Your task to perform on an android device: uninstall "Roku - Official Remote Control" Image 0: 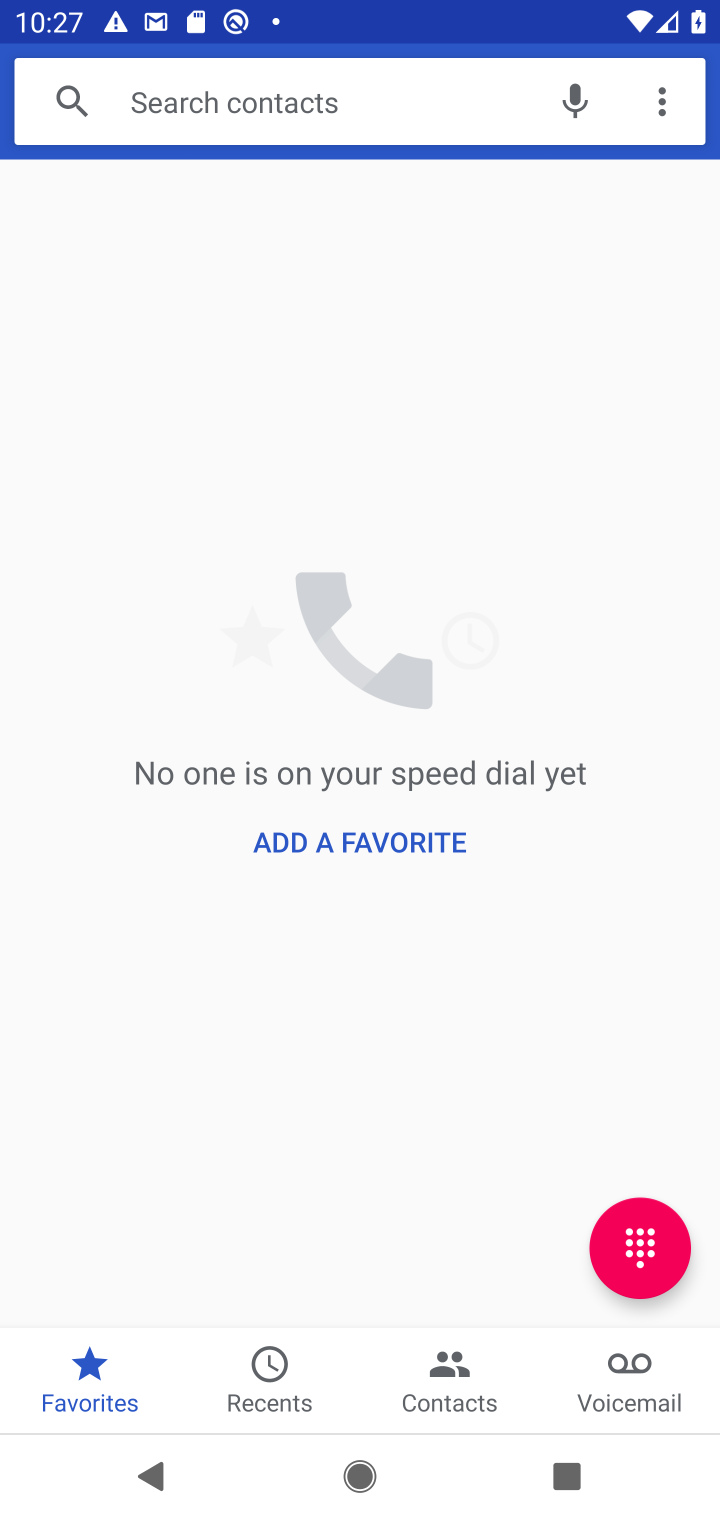
Step 0: press home button
Your task to perform on an android device: uninstall "Roku - Official Remote Control" Image 1: 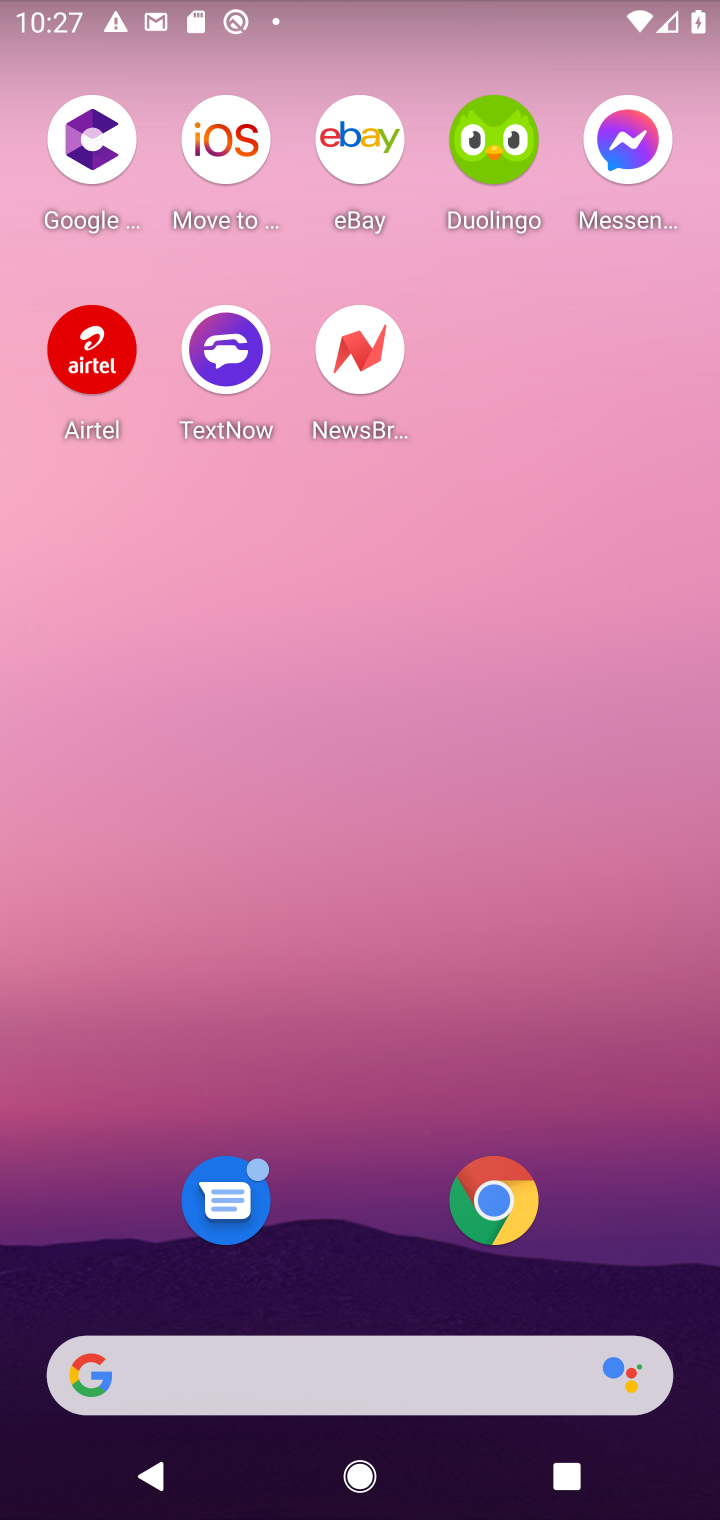
Step 1: press home button
Your task to perform on an android device: uninstall "Roku - Official Remote Control" Image 2: 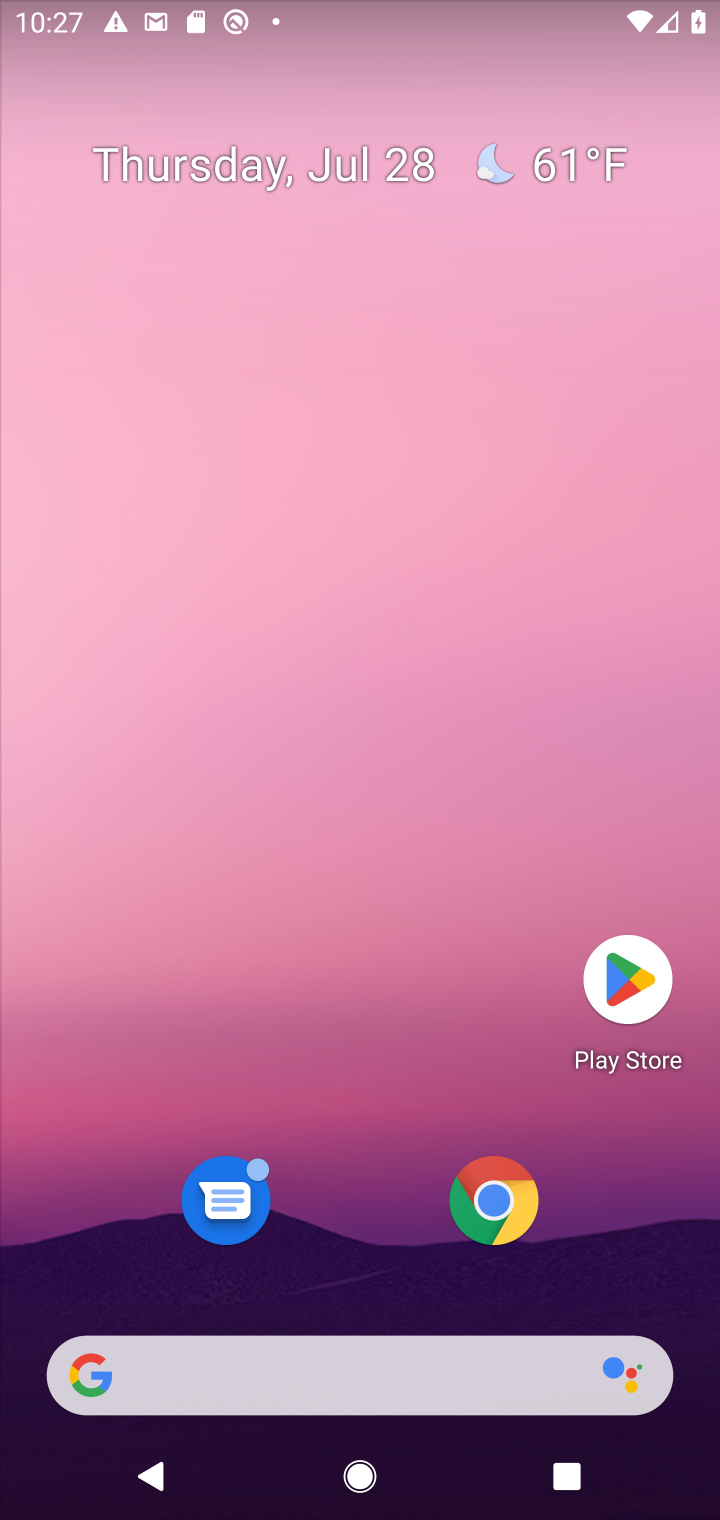
Step 2: click (643, 980)
Your task to perform on an android device: uninstall "Roku - Official Remote Control" Image 3: 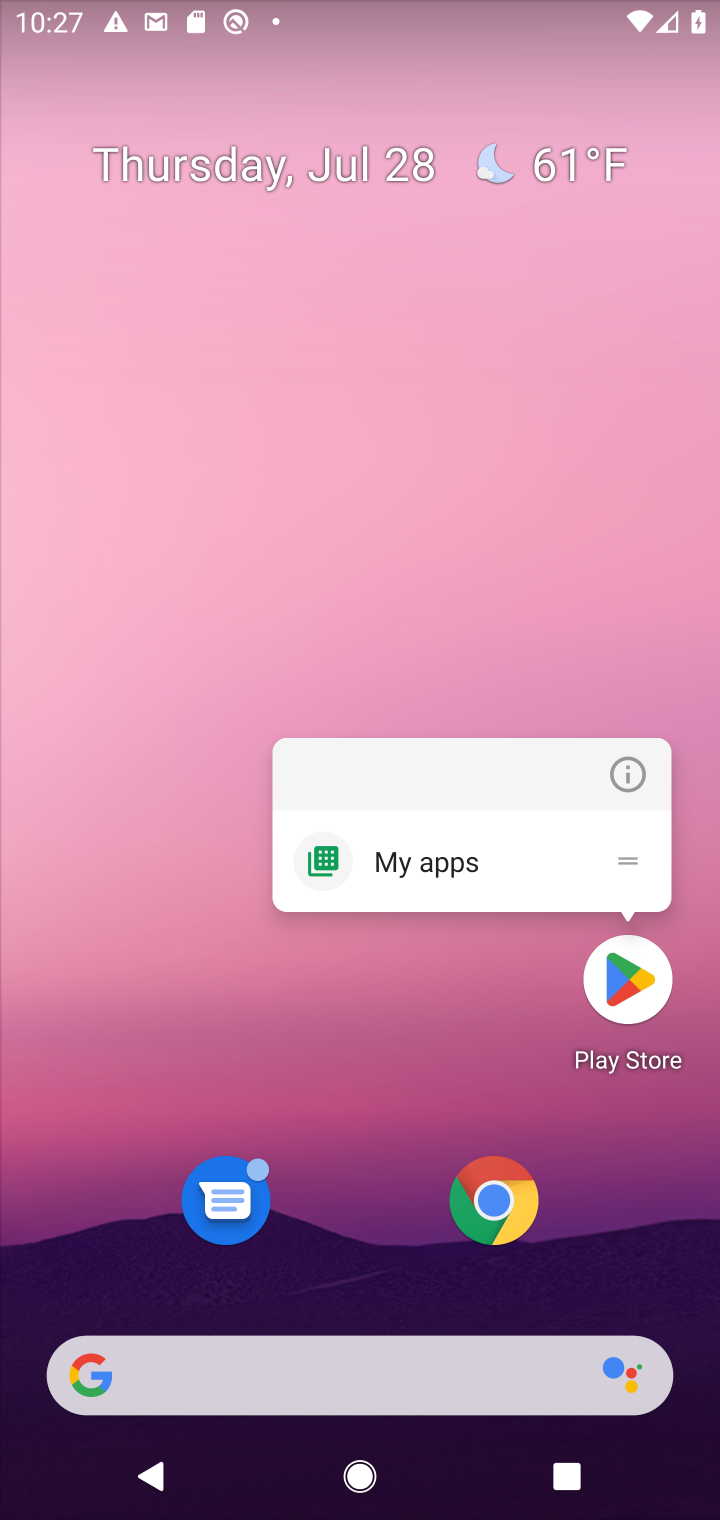
Step 3: click (636, 984)
Your task to perform on an android device: uninstall "Roku - Official Remote Control" Image 4: 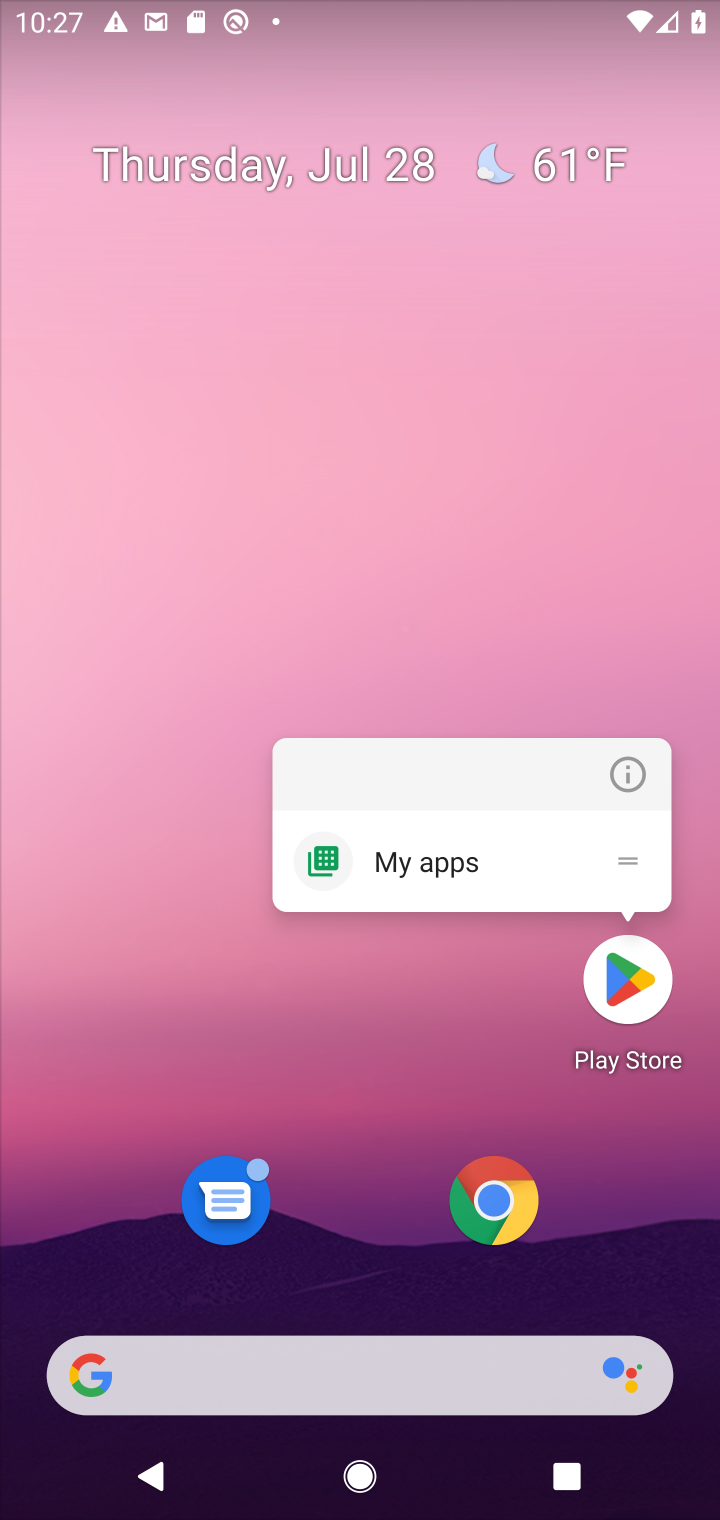
Step 4: click (636, 993)
Your task to perform on an android device: uninstall "Roku - Official Remote Control" Image 5: 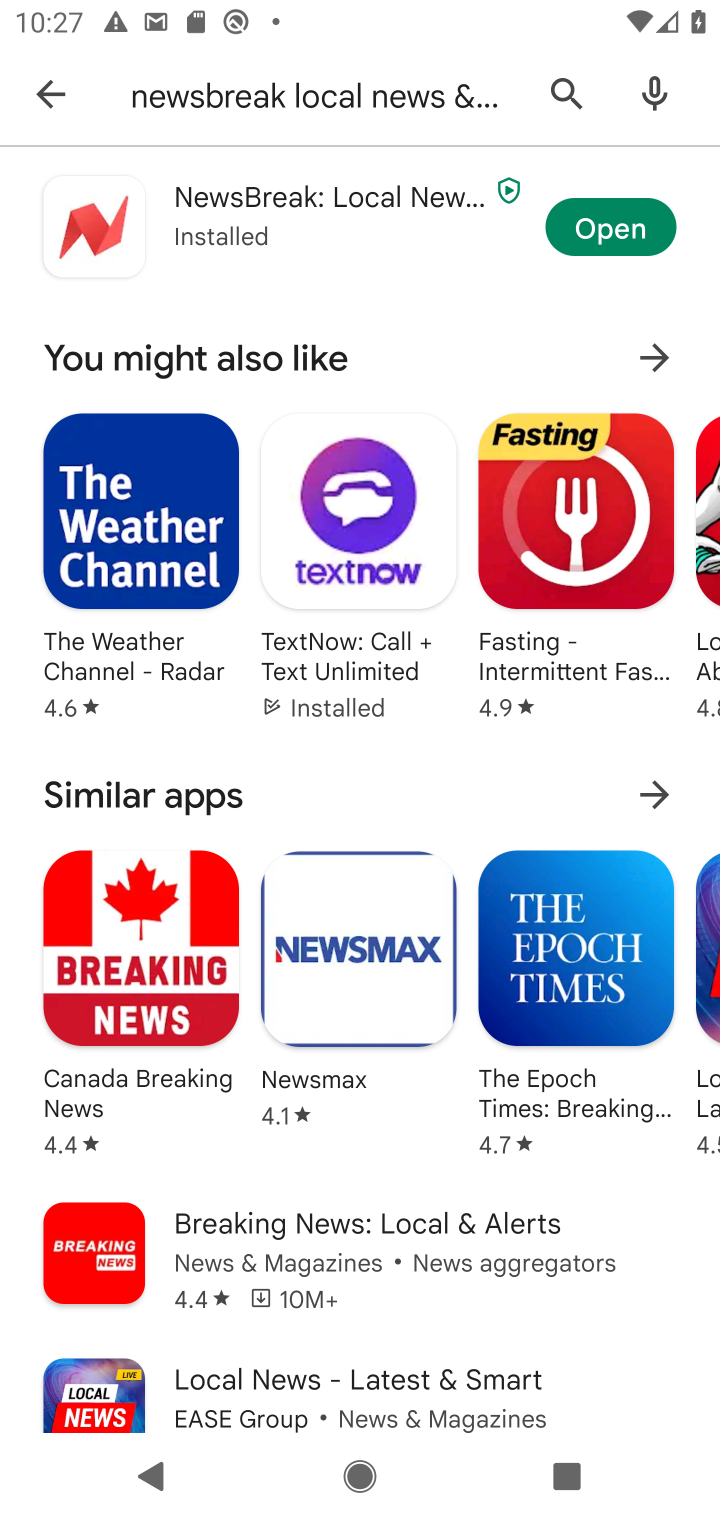
Step 5: click (560, 87)
Your task to perform on an android device: uninstall "Roku - Official Remote Control" Image 6: 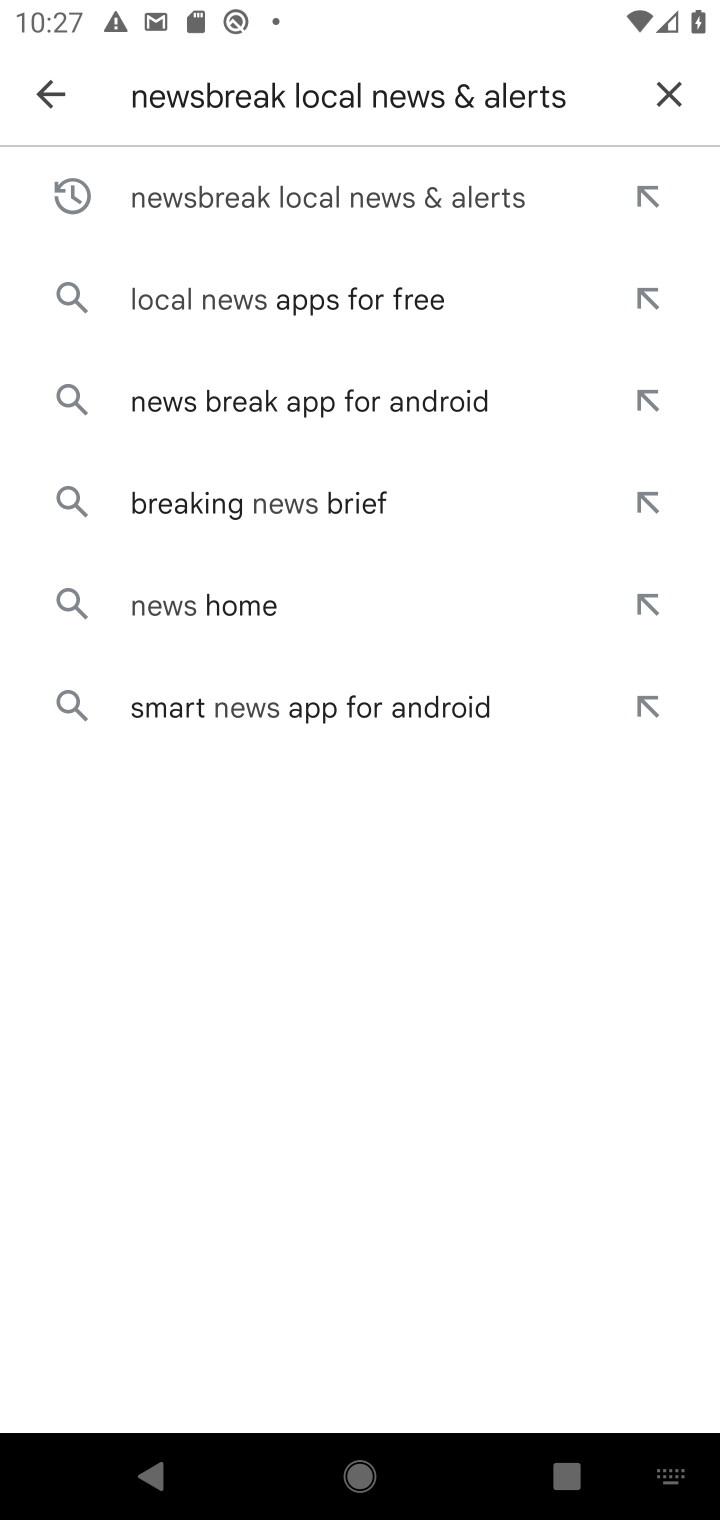
Step 6: click (664, 88)
Your task to perform on an android device: uninstall "Roku - Official Remote Control" Image 7: 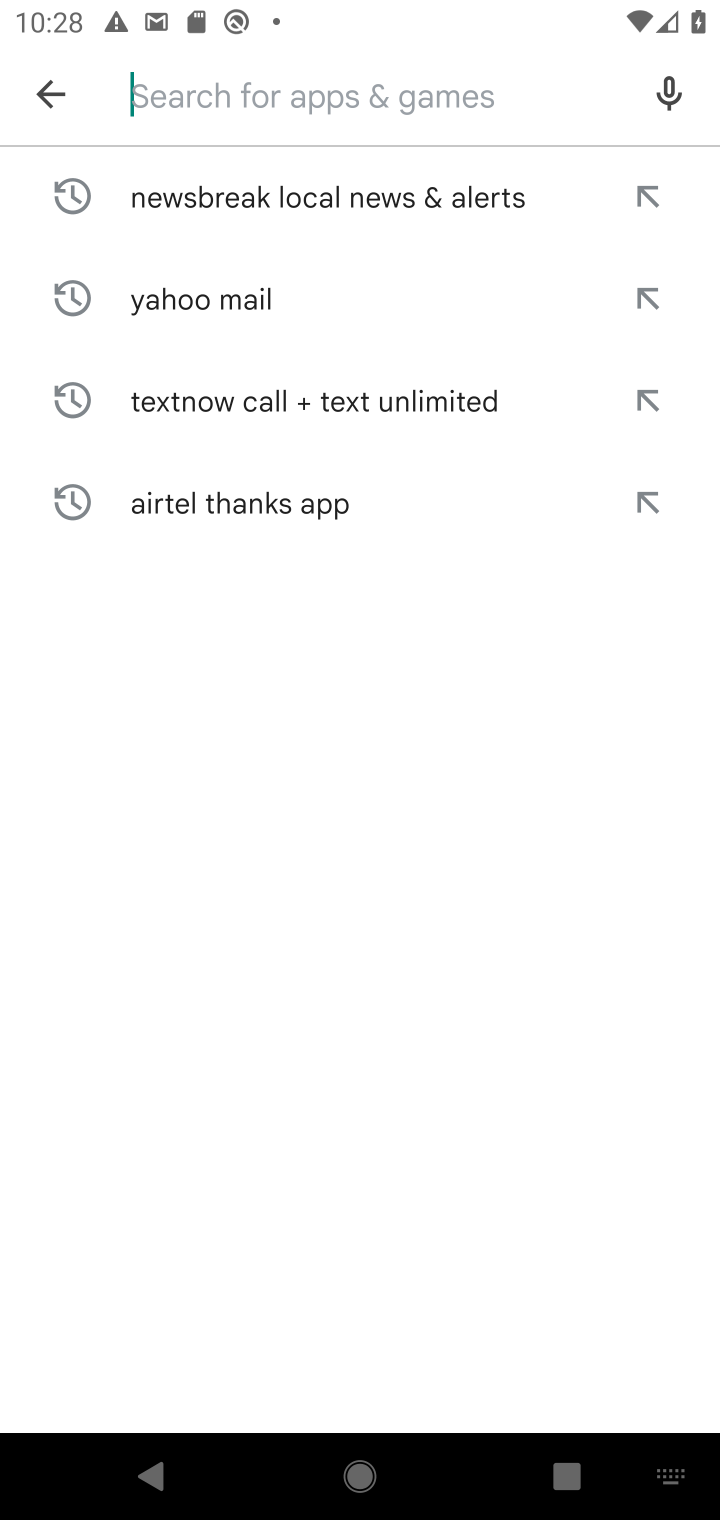
Step 7: type "Roku - Official Remote Control"
Your task to perform on an android device: uninstall "Roku - Official Remote Control" Image 8: 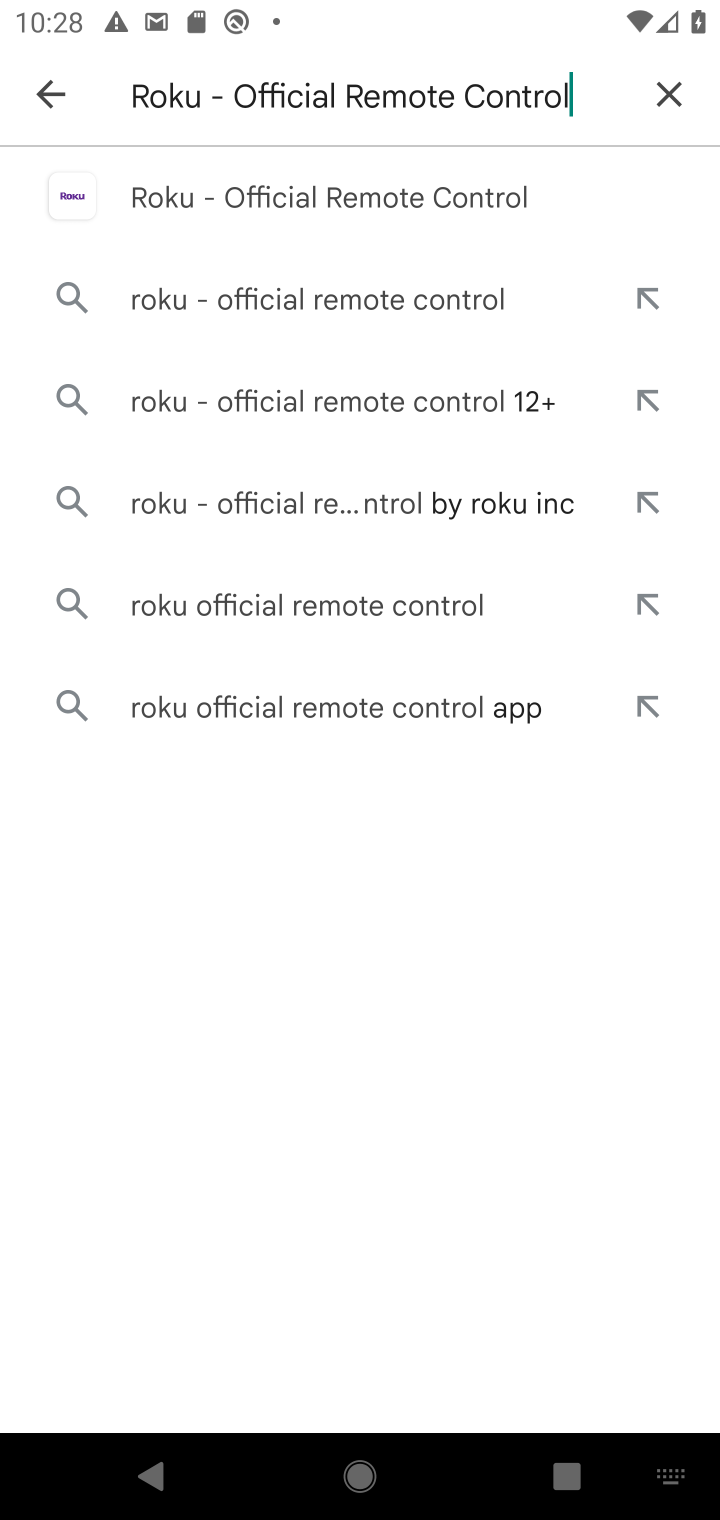
Step 8: click (304, 201)
Your task to perform on an android device: uninstall "Roku - Official Remote Control" Image 9: 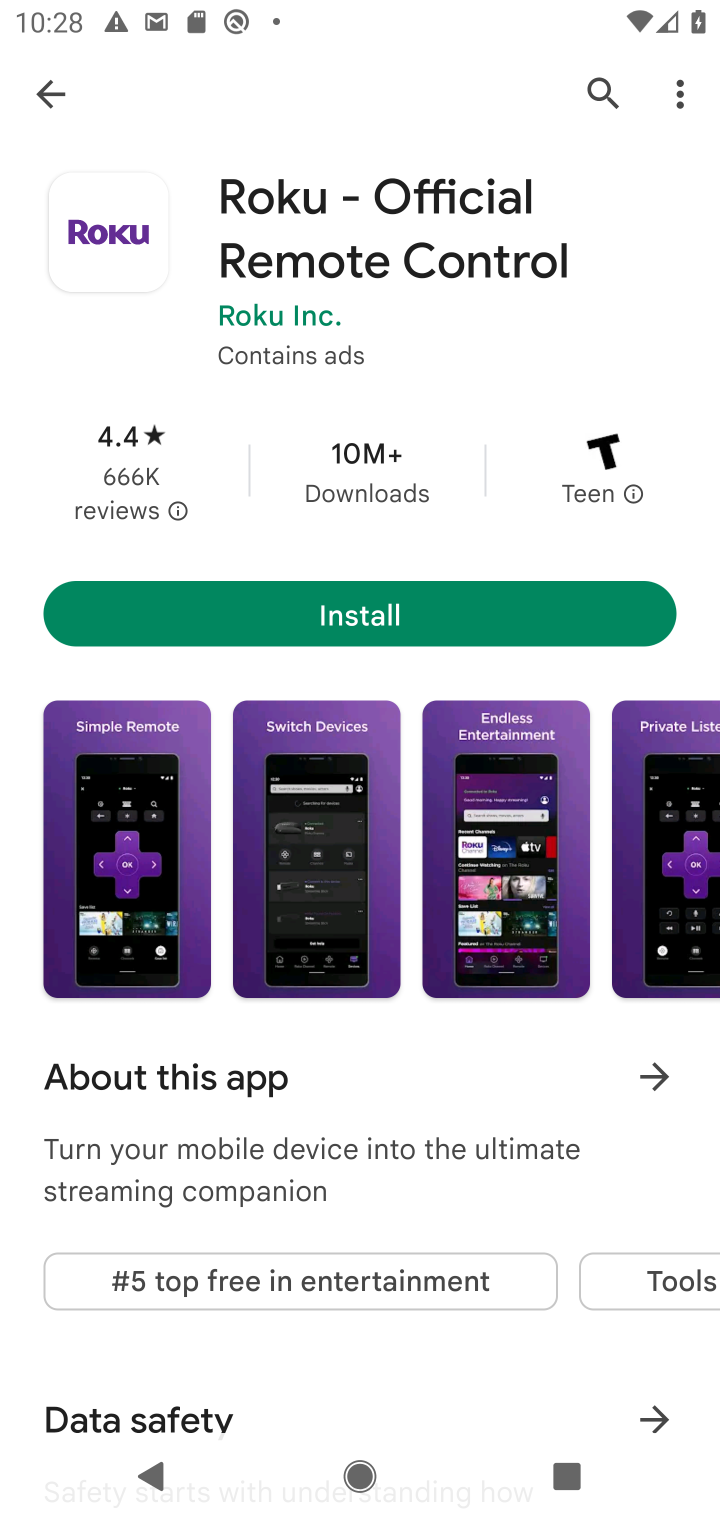
Step 9: task complete